Your task to perform on an android device: Go to notification settings Image 0: 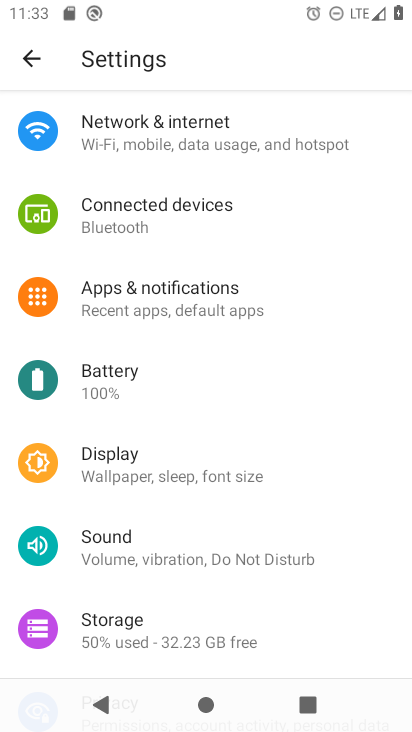
Step 0: press home button
Your task to perform on an android device: Go to notification settings Image 1: 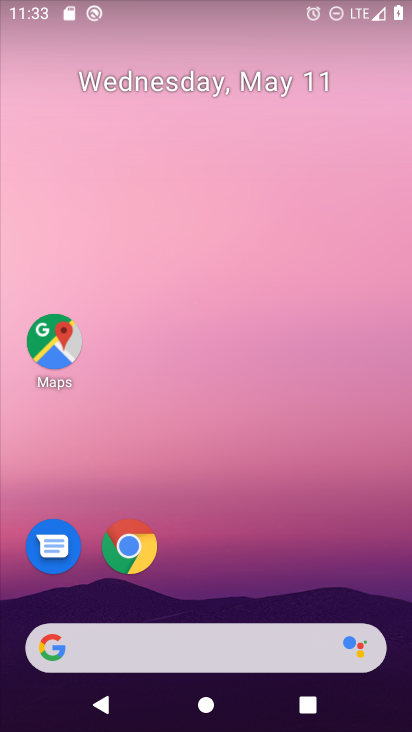
Step 1: drag from (397, 619) to (291, 35)
Your task to perform on an android device: Go to notification settings Image 2: 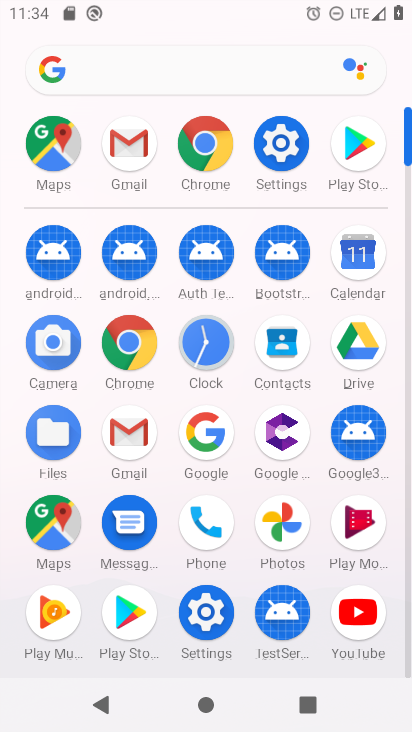
Step 2: click (217, 618)
Your task to perform on an android device: Go to notification settings Image 3: 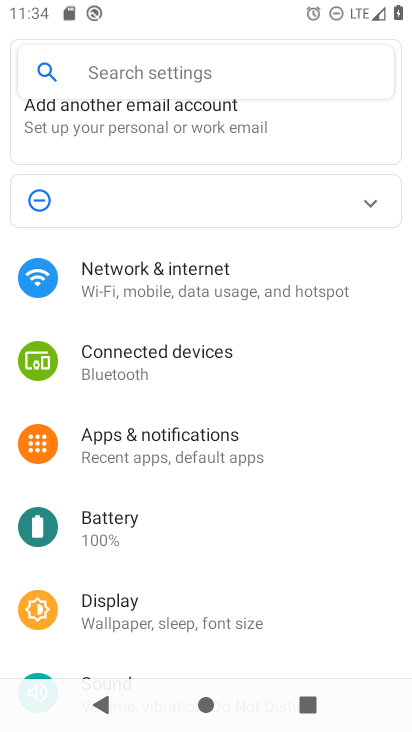
Step 3: click (199, 468)
Your task to perform on an android device: Go to notification settings Image 4: 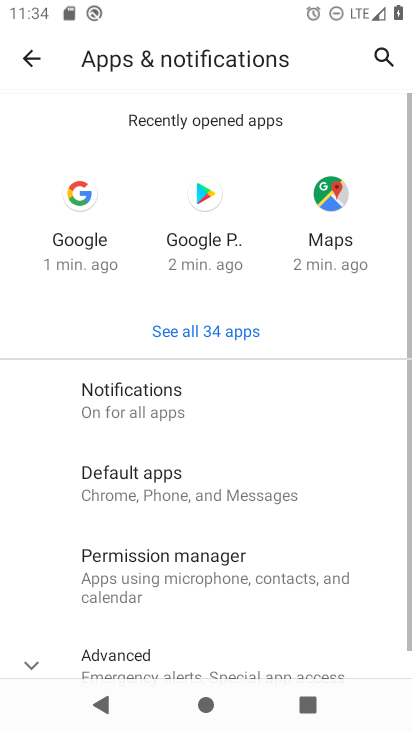
Step 4: click (132, 434)
Your task to perform on an android device: Go to notification settings Image 5: 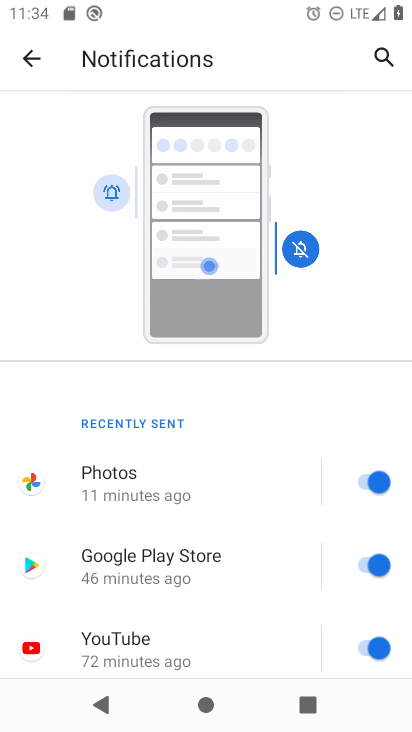
Step 5: task complete